Your task to perform on an android device: Find coffee shops on Maps Image 0: 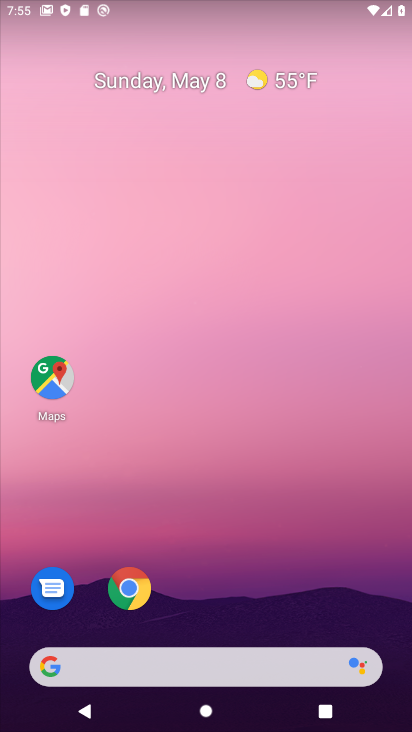
Step 0: drag from (308, 625) to (165, 48)
Your task to perform on an android device: Find coffee shops on Maps Image 1: 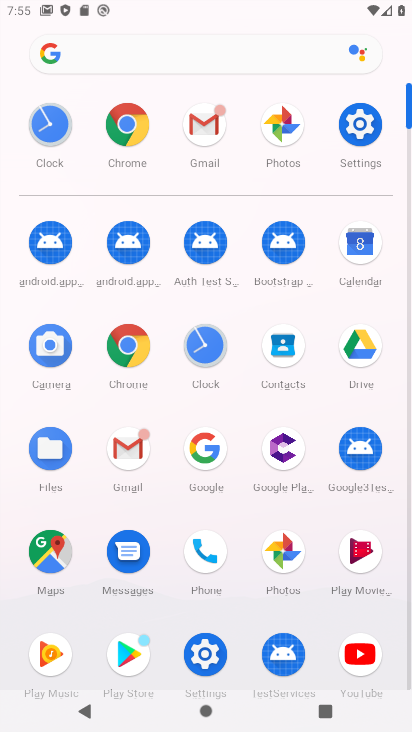
Step 1: click (54, 571)
Your task to perform on an android device: Find coffee shops on Maps Image 2: 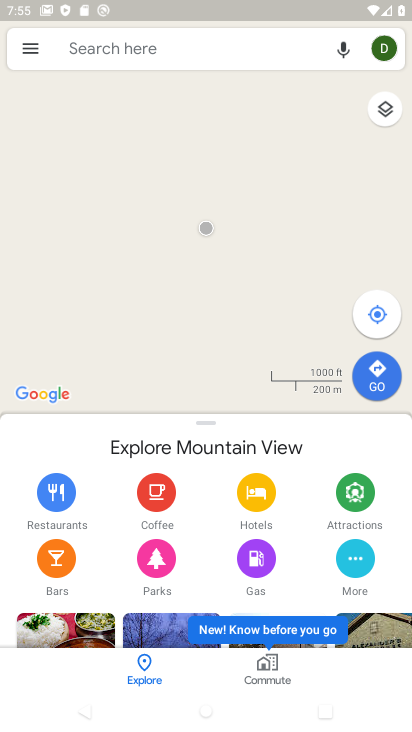
Step 2: click (197, 56)
Your task to perform on an android device: Find coffee shops on Maps Image 3: 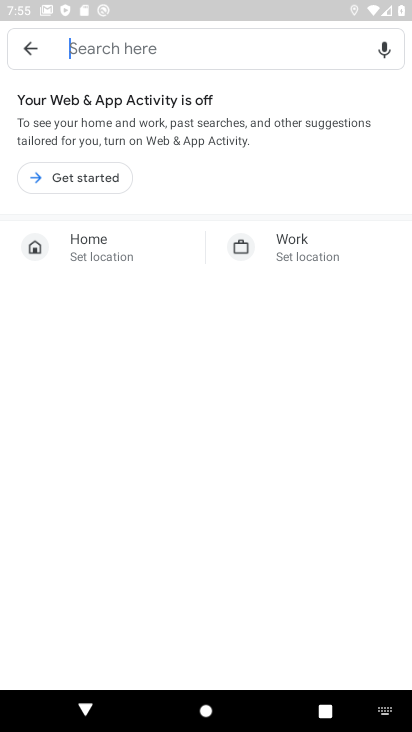
Step 3: click (92, 172)
Your task to perform on an android device: Find coffee shops on Maps Image 4: 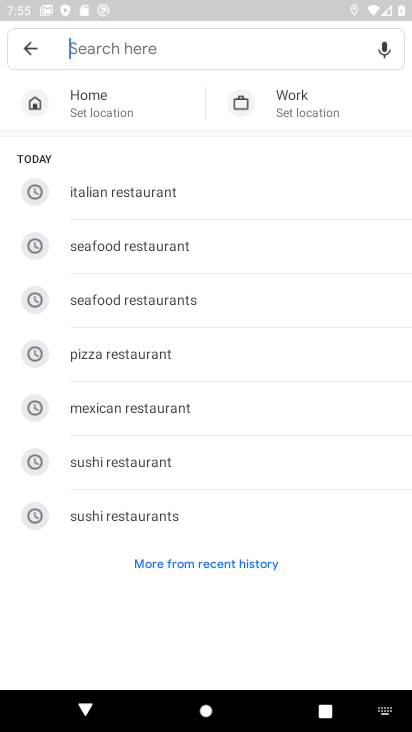
Step 4: drag from (185, 484) to (201, 177)
Your task to perform on an android device: Find coffee shops on Maps Image 5: 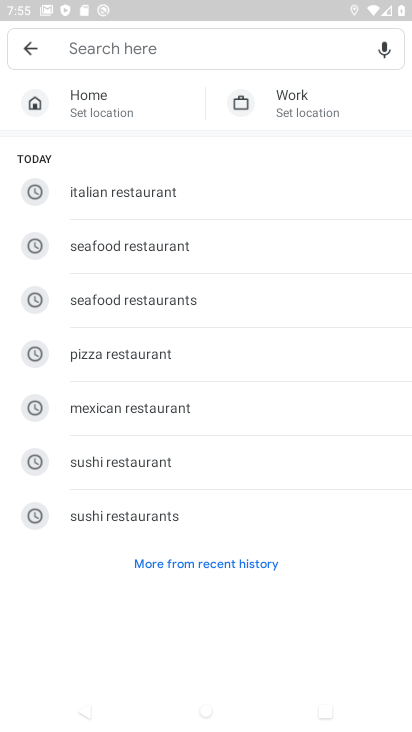
Step 5: click (136, 45)
Your task to perform on an android device: Find coffee shops on Maps Image 6: 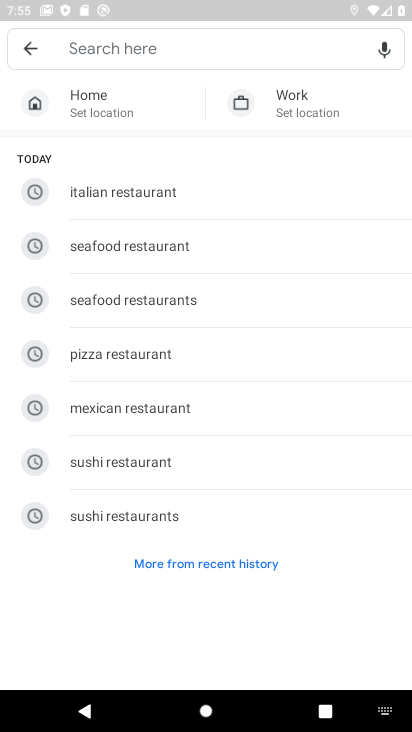
Step 6: type "coffee"
Your task to perform on an android device: Find coffee shops on Maps Image 7: 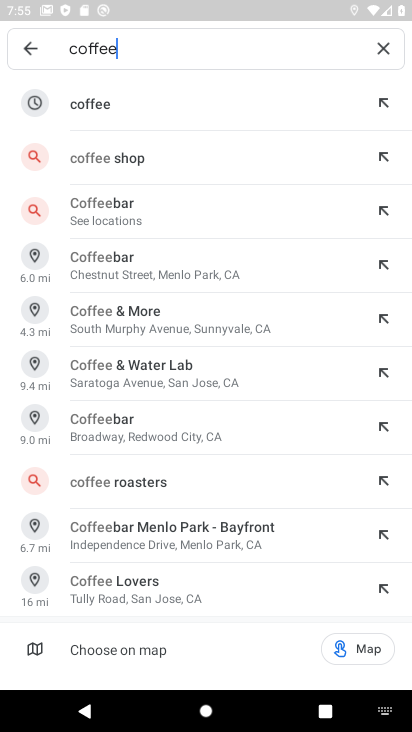
Step 7: click (156, 102)
Your task to perform on an android device: Find coffee shops on Maps Image 8: 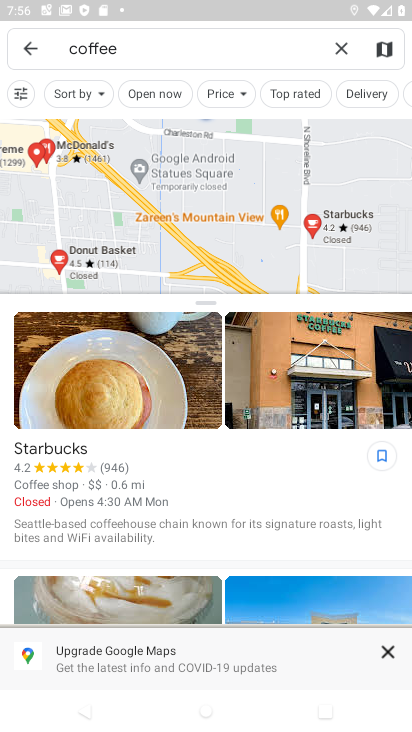
Step 8: task complete